Your task to perform on an android device: Go to calendar. Show me events next week Image 0: 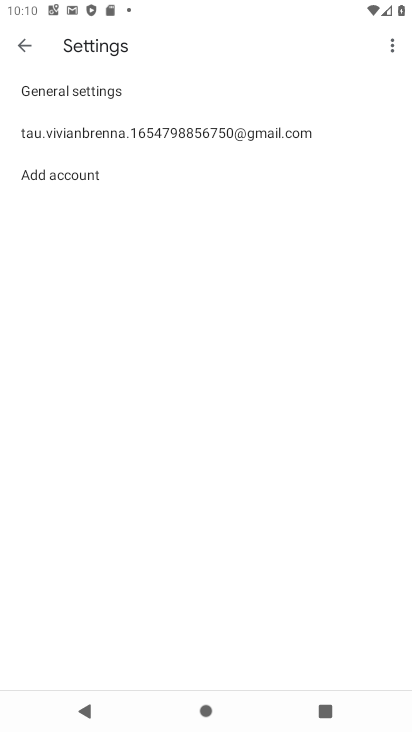
Step 0: press home button
Your task to perform on an android device: Go to calendar. Show me events next week Image 1: 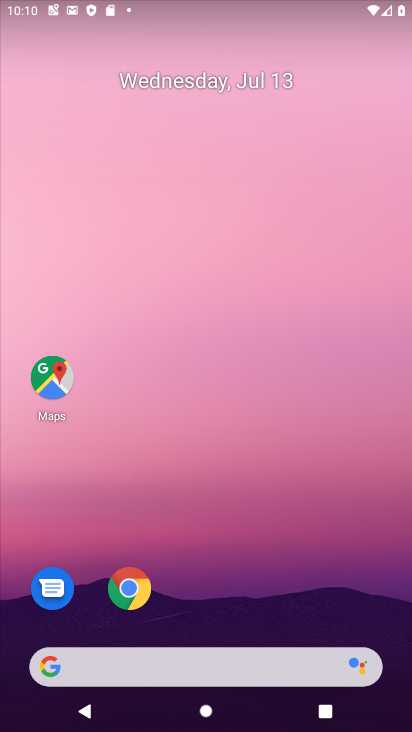
Step 1: drag from (180, 645) to (180, 181)
Your task to perform on an android device: Go to calendar. Show me events next week Image 2: 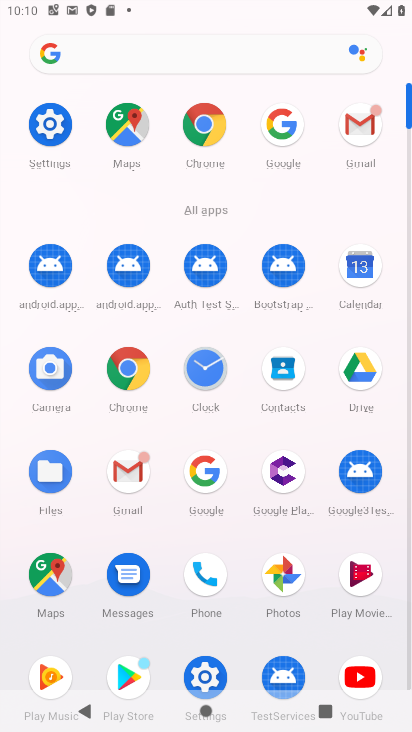
Step 2: click (357, 247)
Your task to perform on an android device: Go to calendar. Show me events next week Image 3: 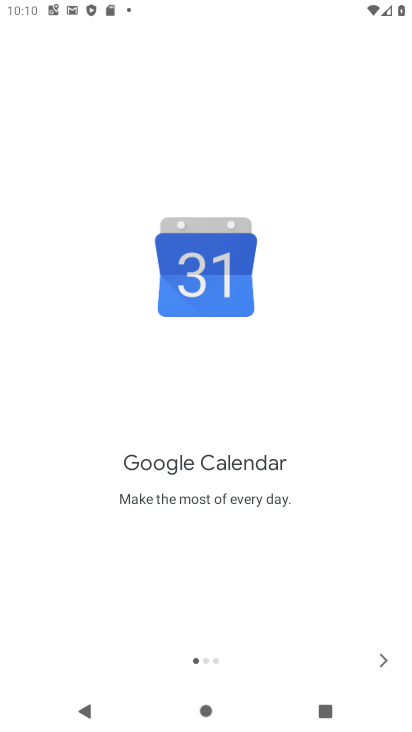
Step 3: click (381, 661)
Your task to perform on an android device: Go to calendar. Show me events next week Image 4: 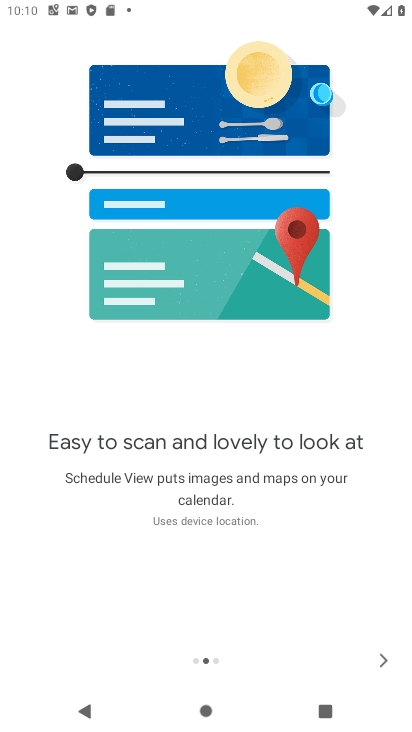
Step 4: click (381, 661)
Your task to perform on an android device: Go to calendar. Show me events next week Image 5: 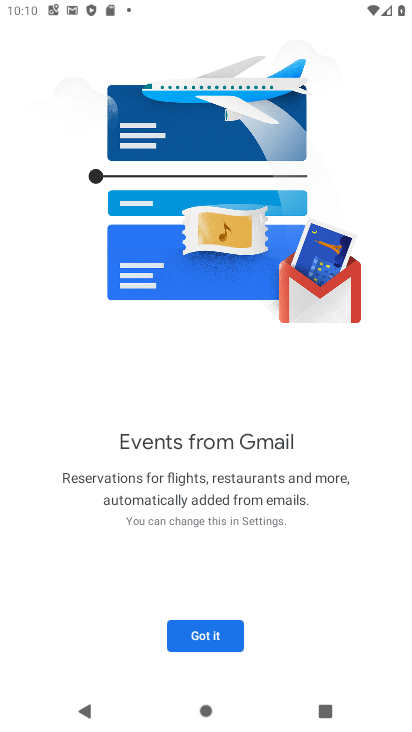
Step 5: click (230, 630)
Your task to perform on an android device: Go to calendar. Show me events next week Image 6: 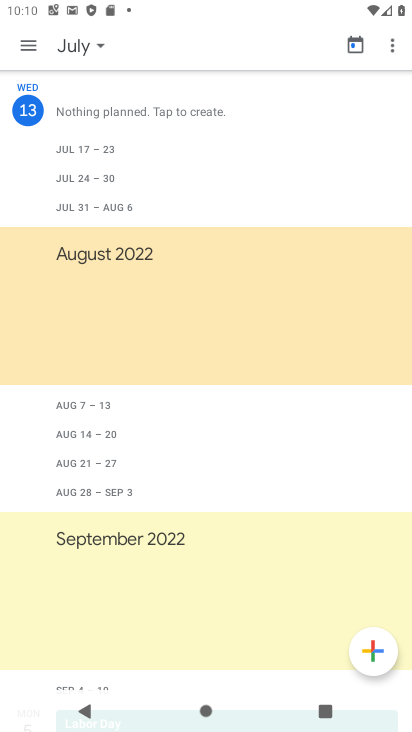
Step 6: click (25, 35)
Your task to perform on an android device: Go to calendar. Show me events next week Image 7: 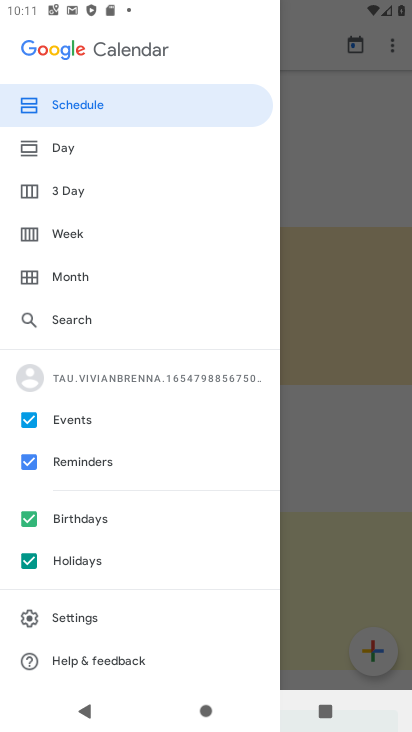
Step 7: click (78, 230)
Your task to perform on an android device: Go to calendar. Show me events next week Image 8: 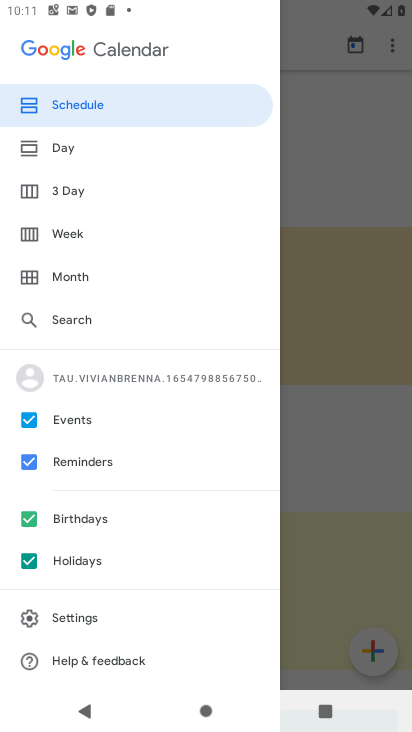
Step 8: click (79, 226)
Your task to perform on an android device: Go to calendar. Show me events next week Image 9: 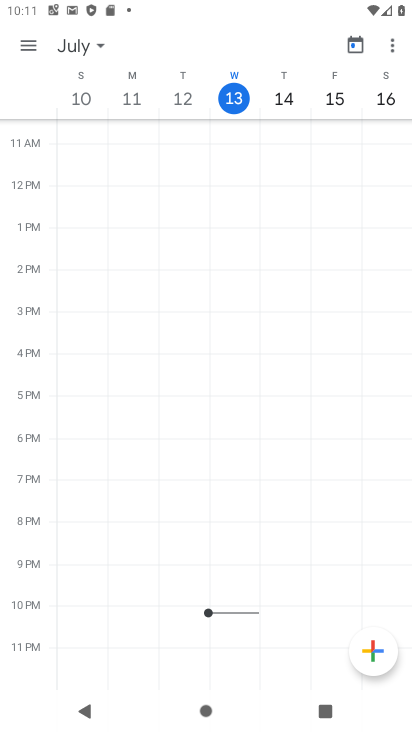
Step 9: task complete